Your task to perform on an android device: How do I get to the nearest Walmart? Image 0: 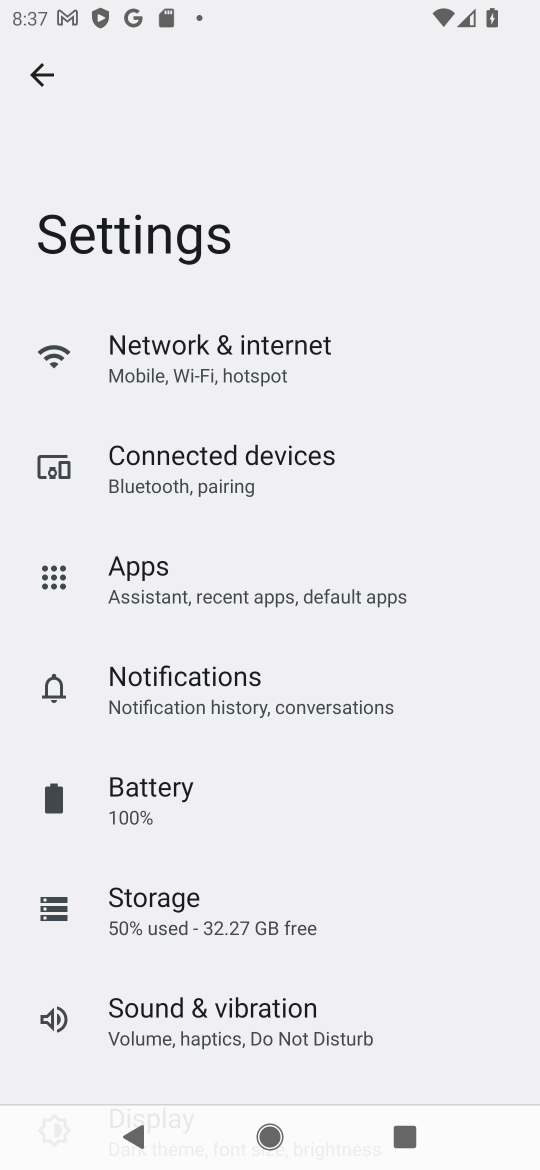
Step 0: press home button
Your task to perform on an android device: How do I get to the nearest Walmart? Image 1: 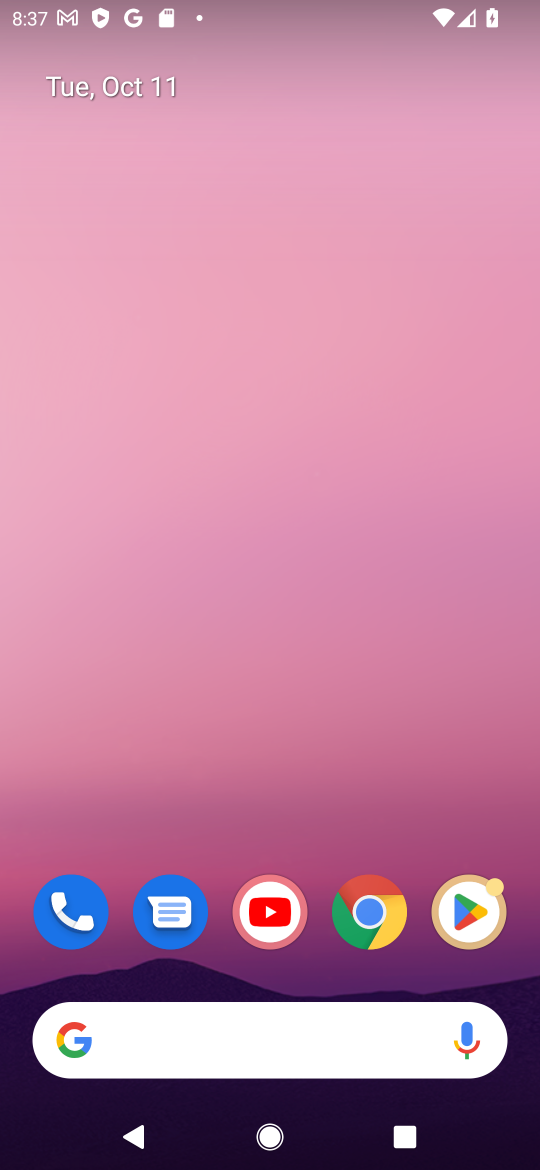
Step 1: click (373, 911)
Your task to perform on an android device: How do I get to the nearest Walmart? Image 2: 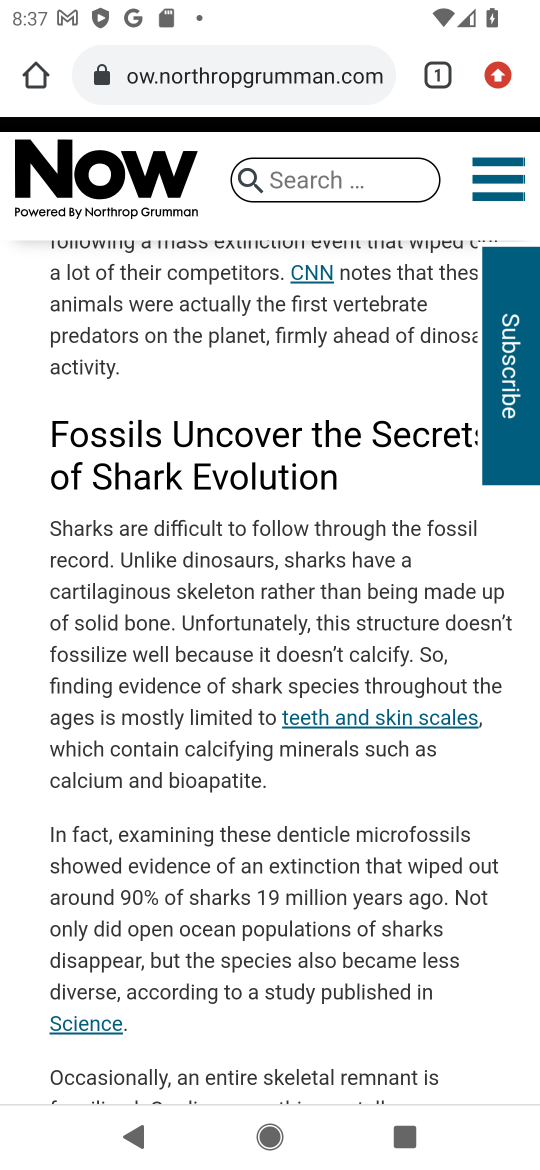
Step 2: click (243, 56)
Your task to perform on an android device: How do I get to the nearest Walmart? Image 3: 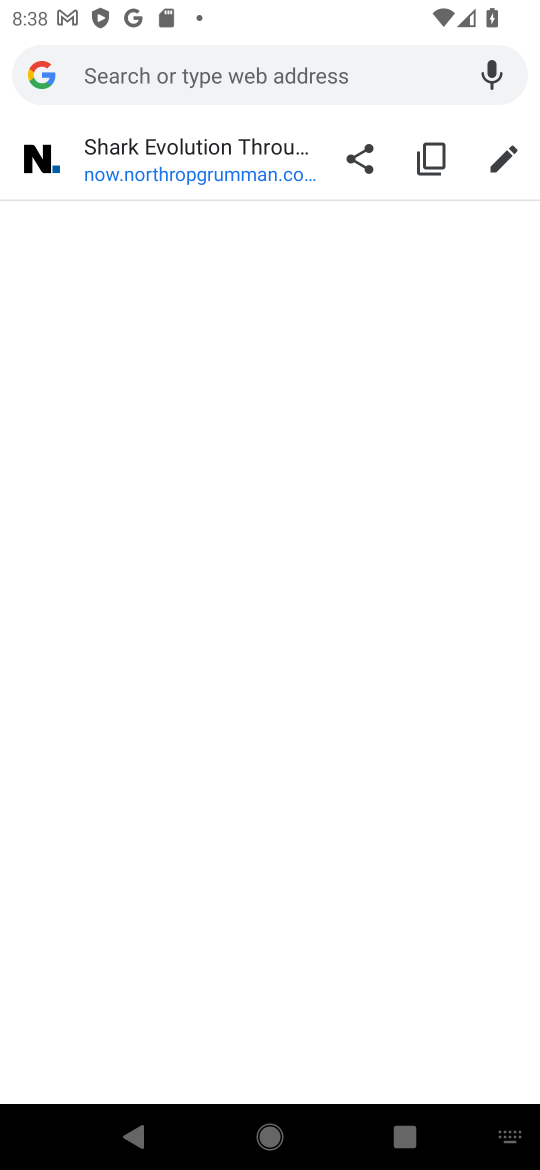
Step 3: type "nearest walmart?"
Your task to perform on an android device: How do I get to the nearest Walmart? Image 4: 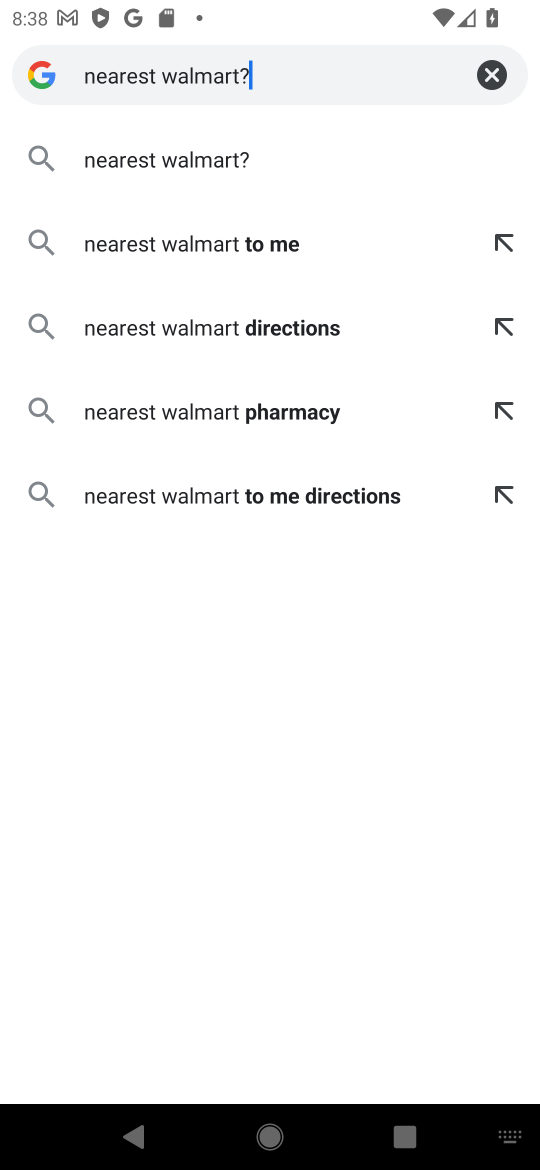
Step 4: click (129, 146)
Your task to perform on an android device: How do I get to the nearest Walmart? Image 5: 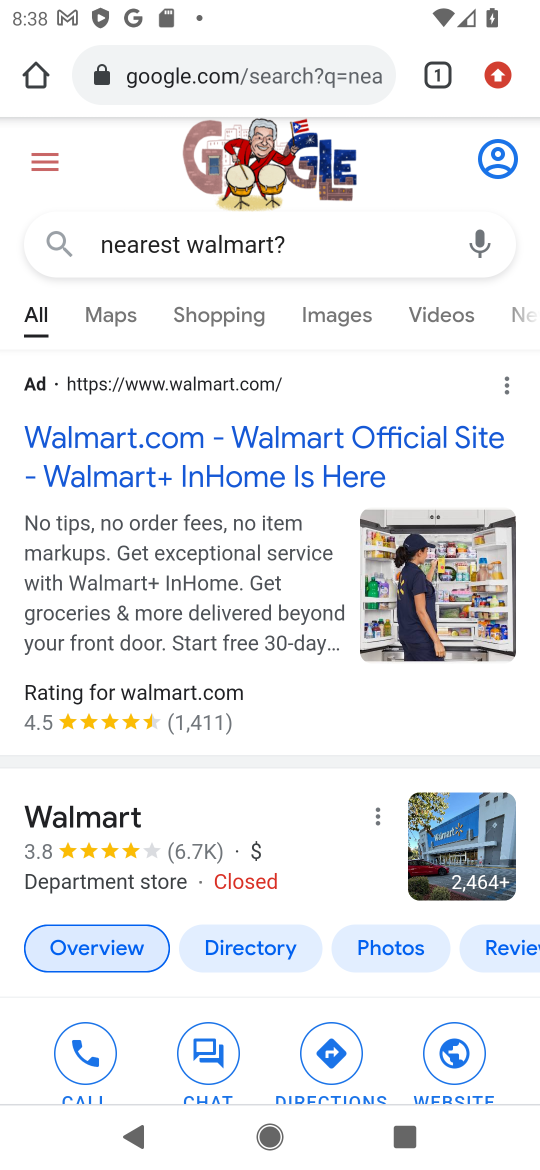
Step 5: task complete